Your task to perform on an android device: Open calendar and show me the second week of next month Image 0: 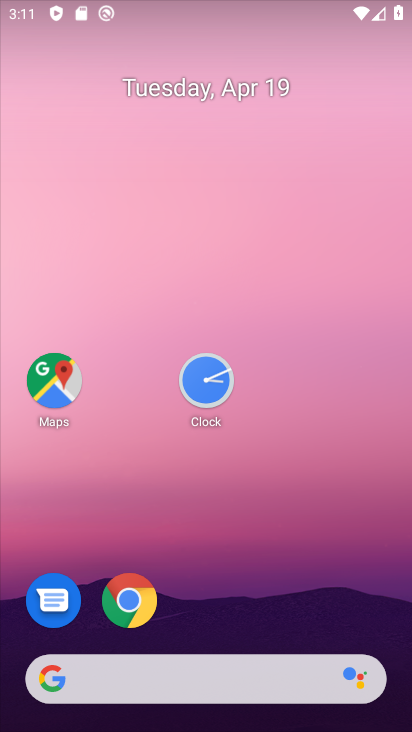
Step 0: drag from (298, 715) to (152, 113)
Your task to perform on an android device: Open calendar and show me the second week of next month Image 1: 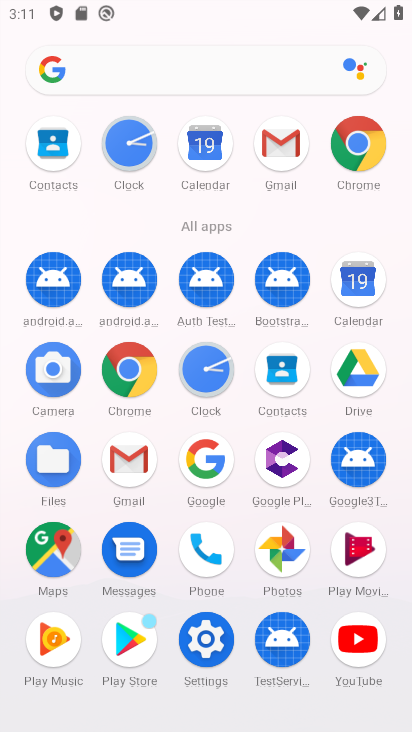
Step 1: click (350, 284)
Your task to perform on an android device: Open calendar and show me the second week of next month Image 2: 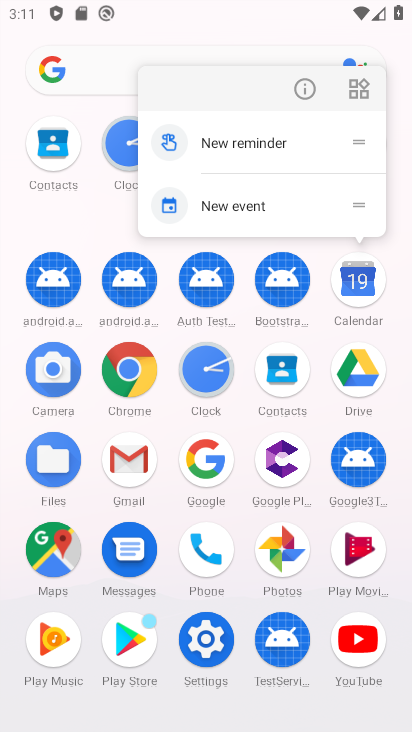
Step 2: click (347, 281)
Your task to perform on an android device: Open calendar and show me the second week of next month Image 3: 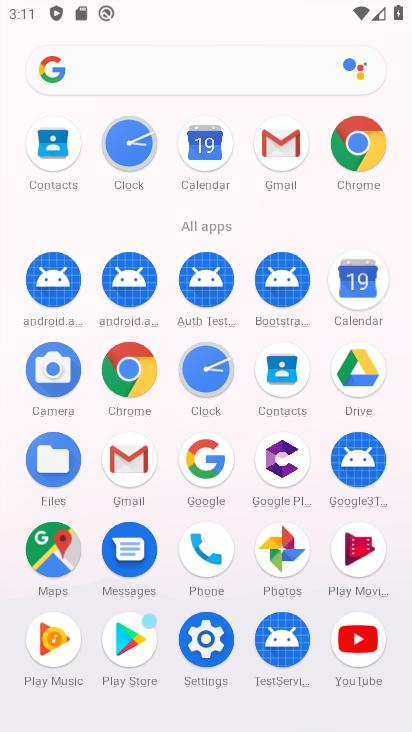
Step 3: click (339, 280)
Your task to perform on an android device: Open calendar and show me the second week of next month Image 4: 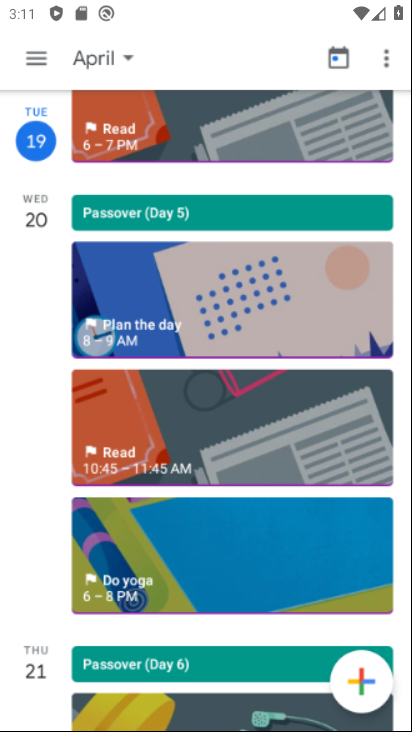
Step 4: click (350, 280)
Your task to perform on an android device: Open calendar and show me the second week of next month Image 5: 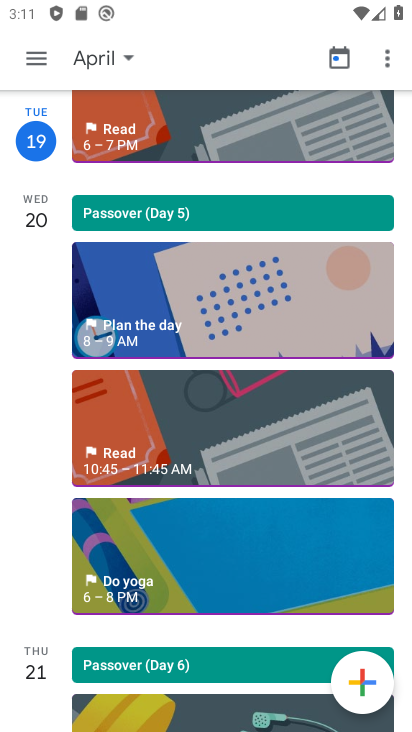
Step 5: click (129, 58)
Your task to perform on an android device: Open calendar and show me the second week of next month Image 6: 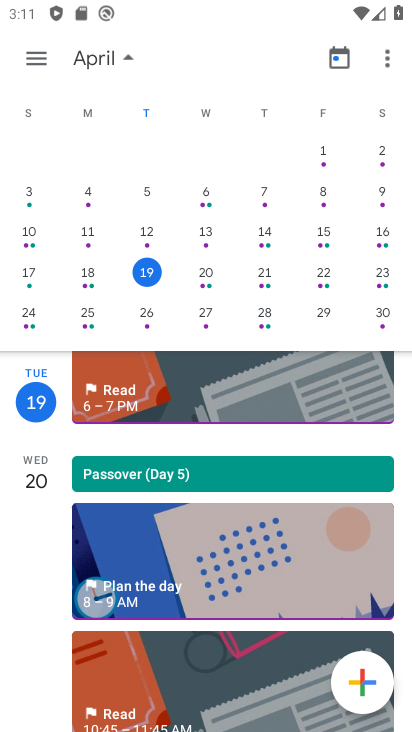
Step 6: drag from (281, 263) to (84, 261)
Your task to perform on an android device: Open calendar and show me the second week of next month Image 7: 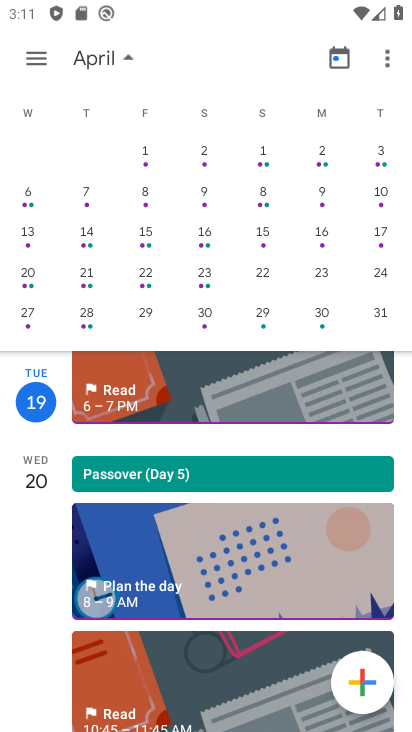
Step 7: drag from (246, 280) to (40, 245)
Your task to perform on an android device: Open calendar and show me the second week of next month Image 8: 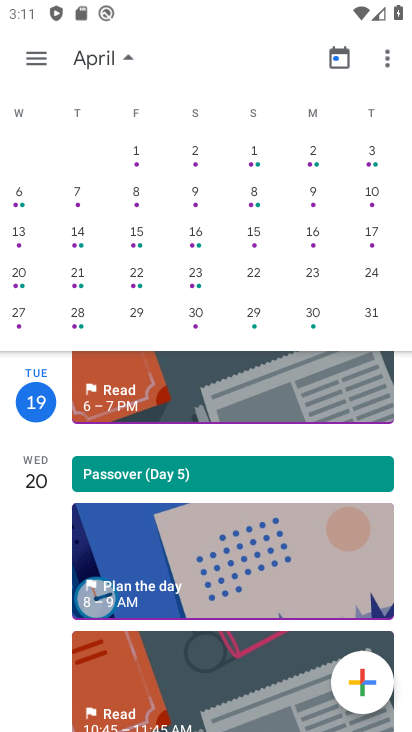
Step 8: drag from (148, 278) to (17, 273)
Your task to perform on an android device: Open calendar and show me the second week of next month Image 9: 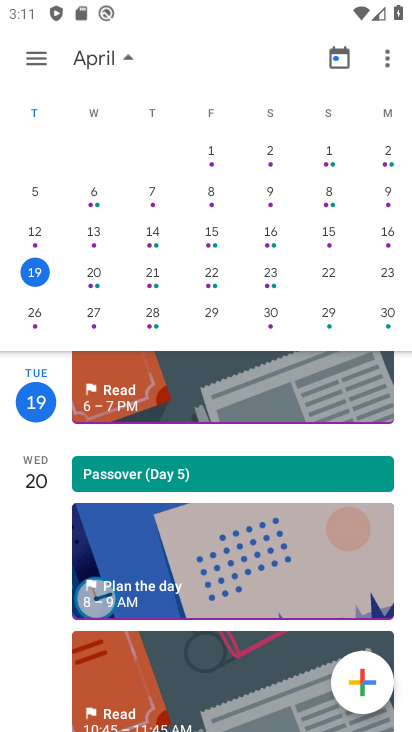
Step 9: drag from (130, 269) to (98, 281)
Your task to perform on an android device: Open calendar and show me the second week of next month Image 10: 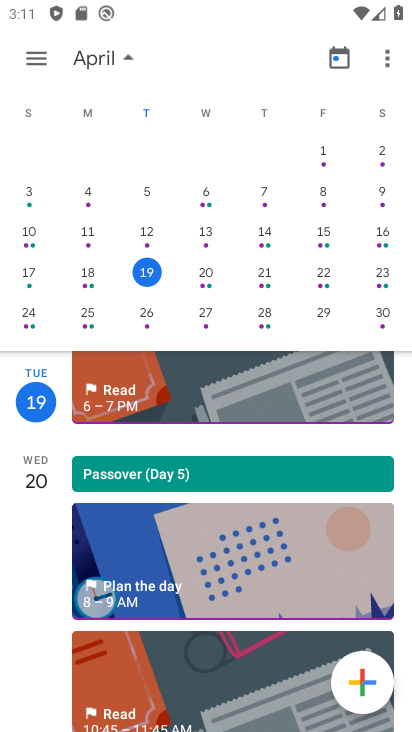
Step 10: drag from (275, 271) to (26, 256)
Your task to perform on an android device: Open calendar and show me the second week of next month Image 11: 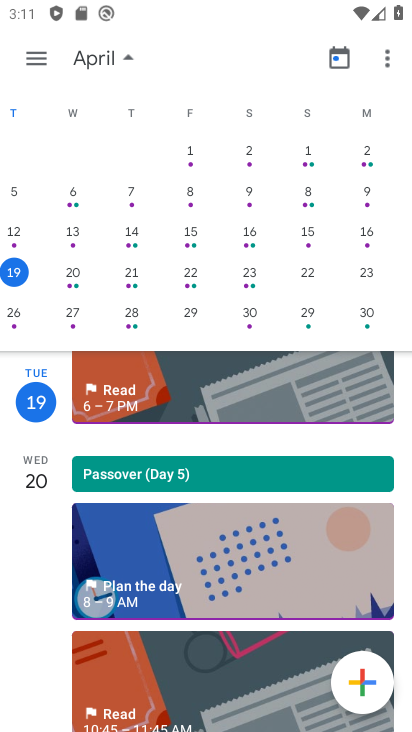
Step 11: drag from (303, 246) to (32, 235)
Your task to perform on an android device: Open calendar and show me the second week of next month Image 12: 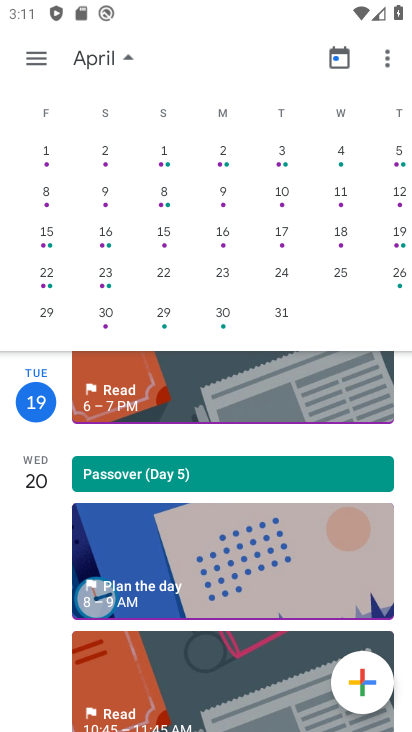
Step 12: drag from (45, 247) to (11, 246)
Your task to perform on an android device: Open calendar and show me the second week of next month Image 13: 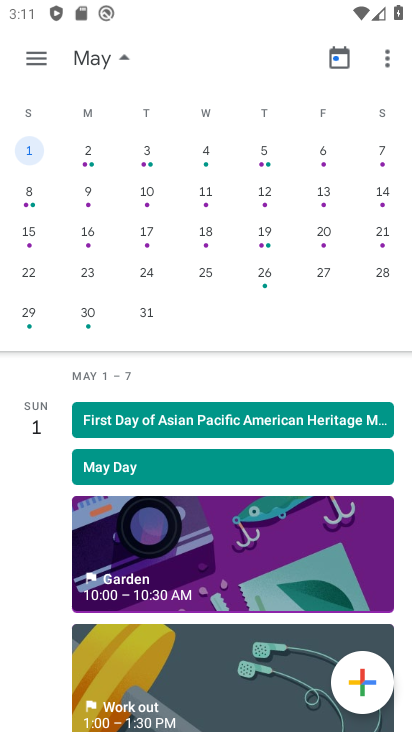
Step 13: click (87, 193)
Your task to perform on an android device: Open calendar and show me the second week of next month Image 14: 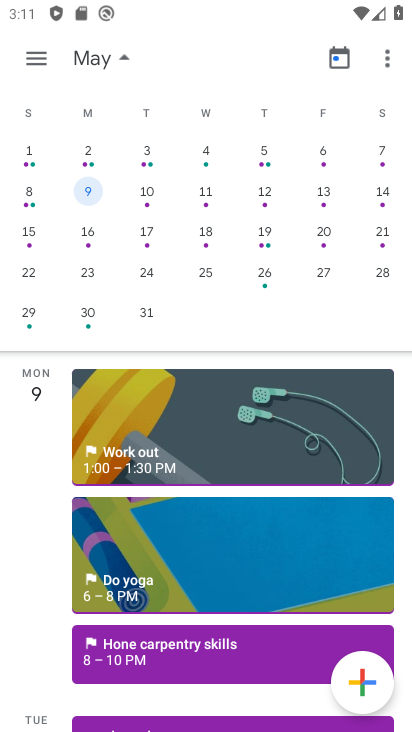
Step 14: click (85, 188)
Your task to perform on an android device: Open calendar and show me the second week of next month Image 15: 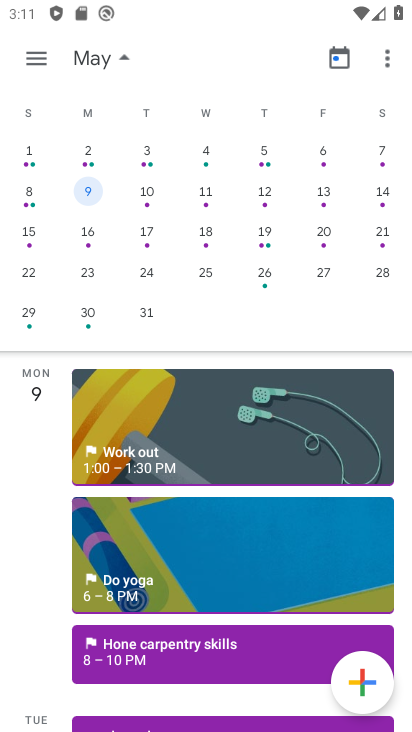
Step 15: click (86, 186)
Your task to perform on an android device: Open calendar and show me the second week of next month Image 16: 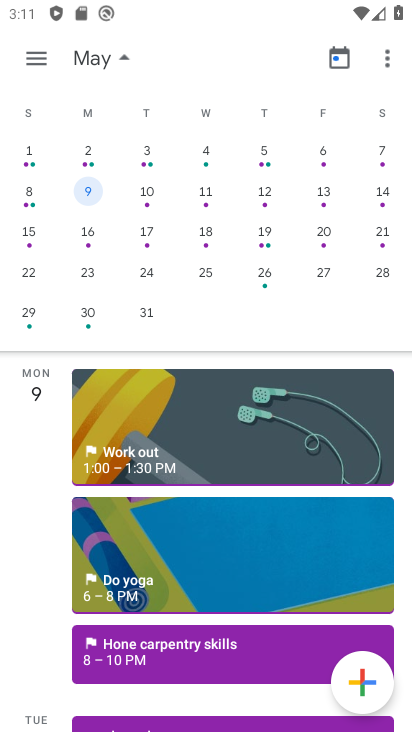
Step 16: task complete